Your task to perform on an android device: add a contact Image 0: 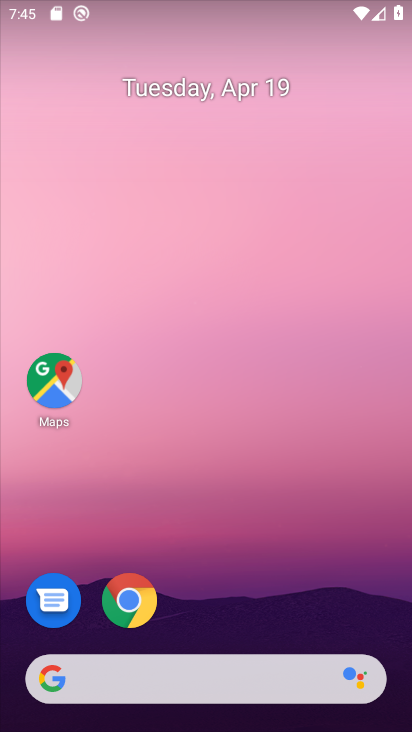
Step 0: drag from (361, 604) to (355, 127)
Your task to perform on an android device: add a contact Image 1: 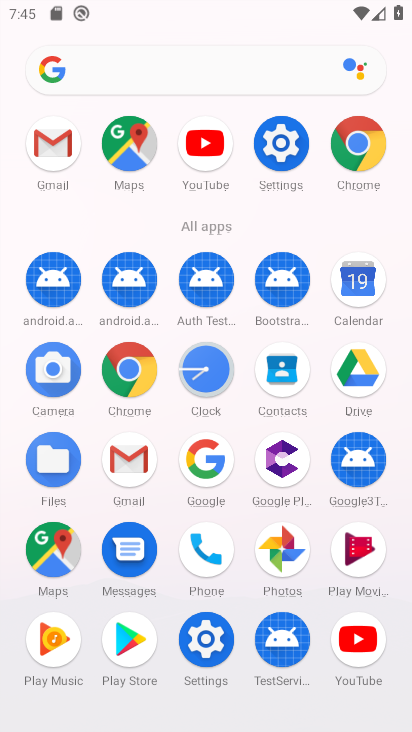
Step 1: click (296, 371)
Your task to perform on an android device: add a contact Image 2: 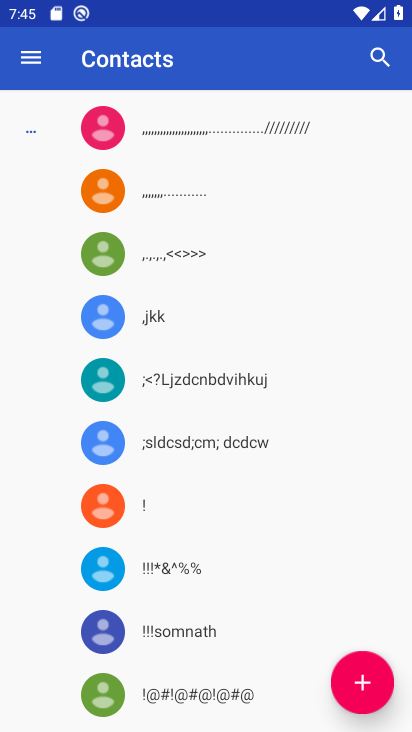
Step 2: click (363, 695)
Your task to perform on an android device: add a contact Image 3: 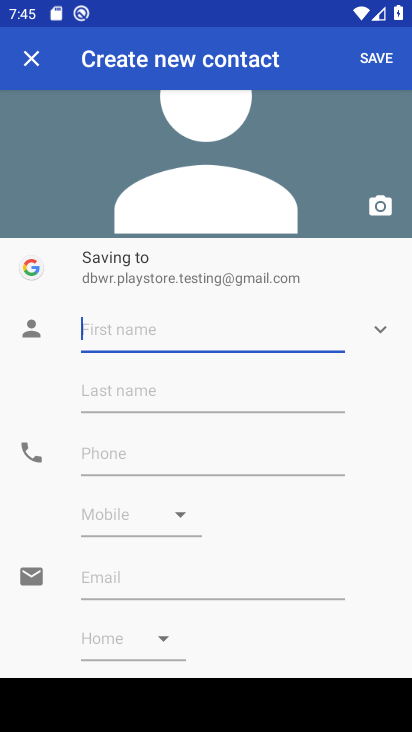
Step 3: type "my name "
Your task to perform on an android device: add a contact Image 4: 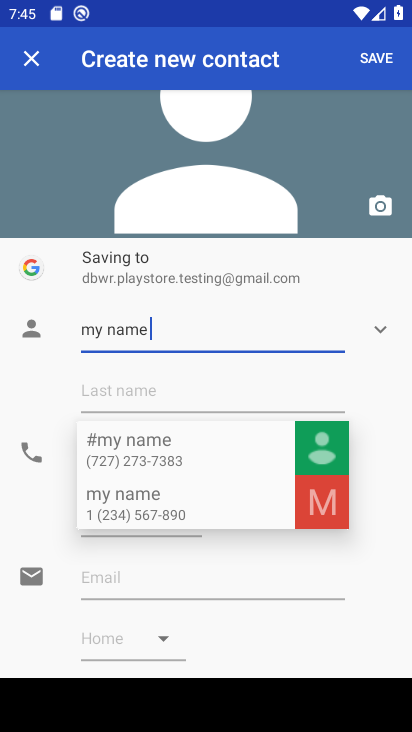
Step 4: click (389, 411)
Your task to perform on an android device: add a contact Image 5: 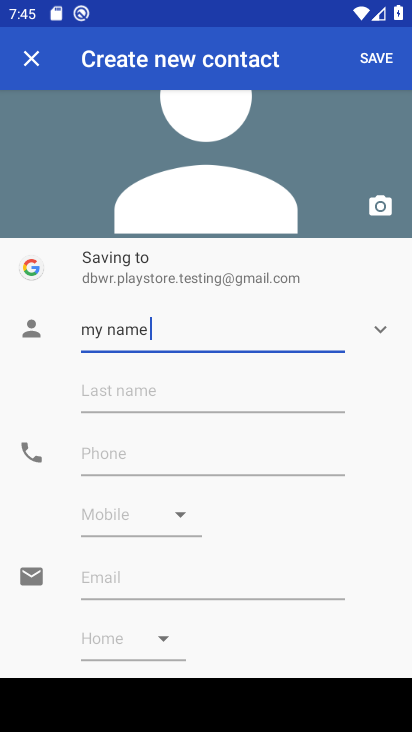
Step 5: click (272, 454)
Your task to perform on an android device: add a contact Image 6: 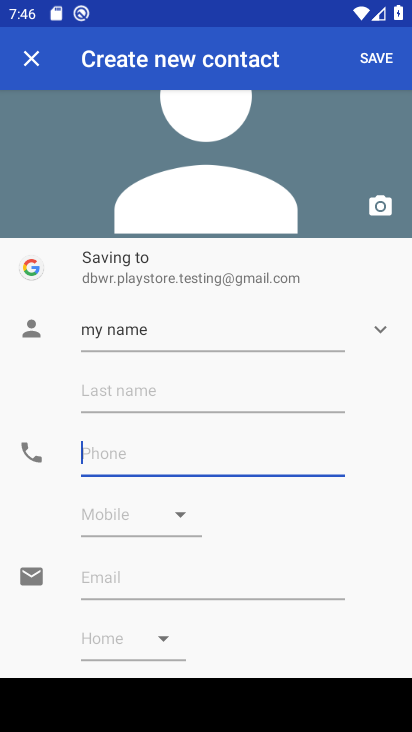
Step 6: type "1234567890"
Your task to perform on an android device: add a contact Image 7: 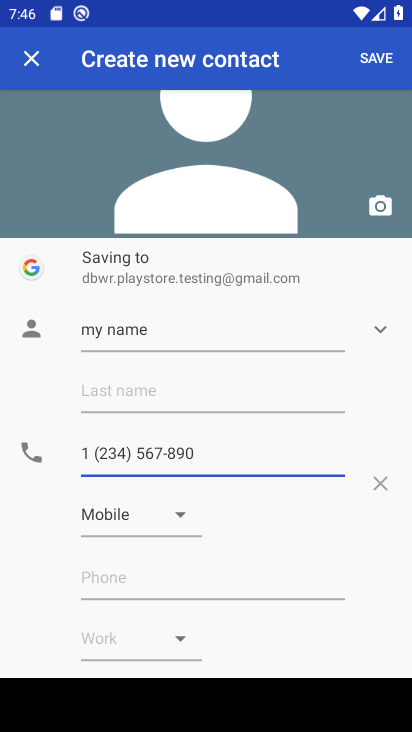
Step 7: click (380, 58)
Your task to perform on an android device: add a contact Image 8: 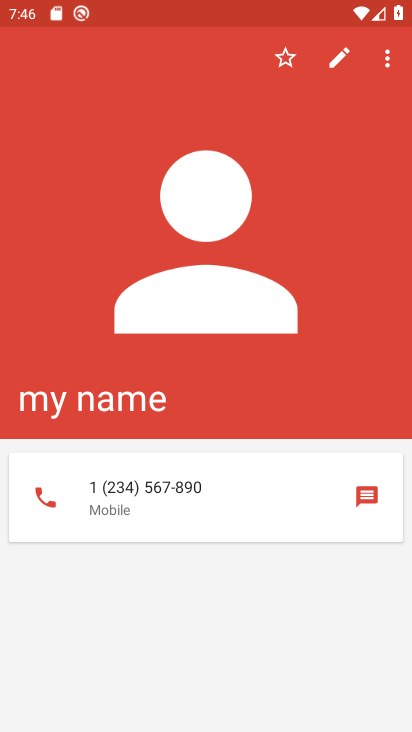
Step 8: task complete